Your task to perform on an android device: search for starred emails in the gmail app Image 0: 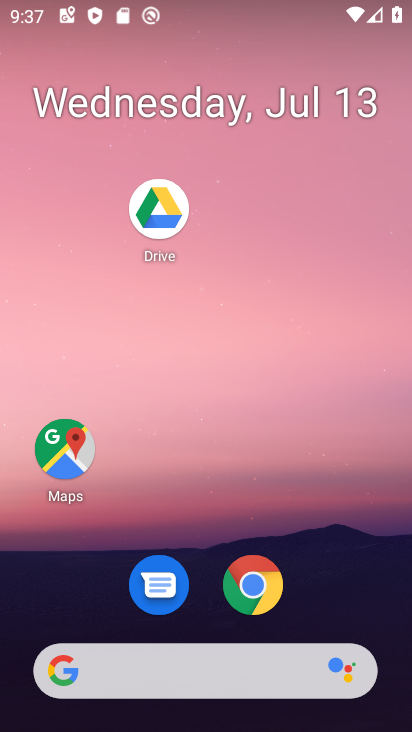
Step 0: press home button
Your task to perform on an android device: search for starred emails in the gmail app Image 1: 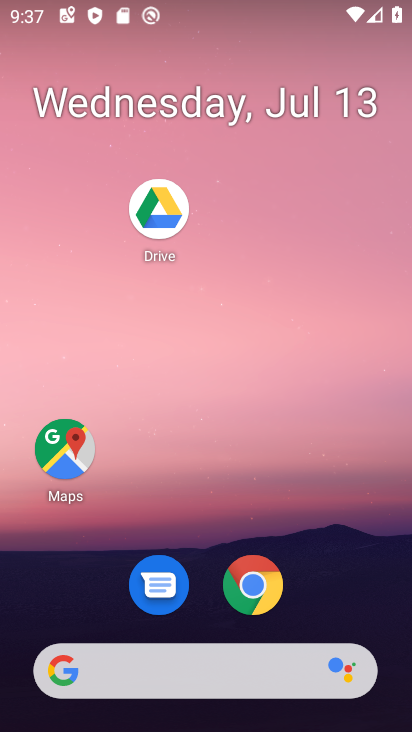
Step 1: drag from (208, 679) to (360, 66)
Your task to perform on an android device: search for starred emails in the gmail app Image 2: 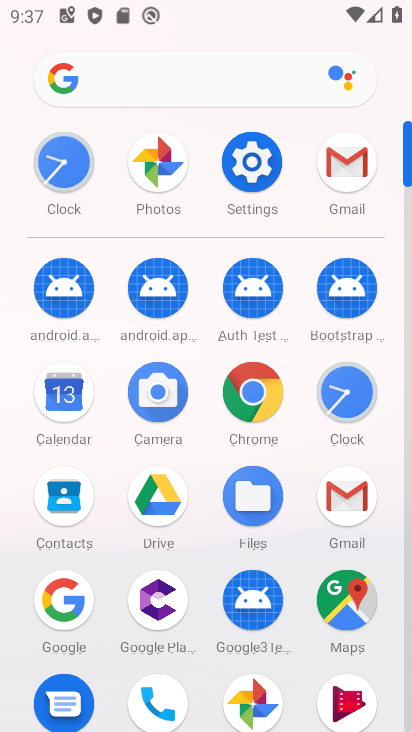
Step 2: click (340, 157)
Your task to perform on an android device: search for starred emails in the gmail app Image 3: 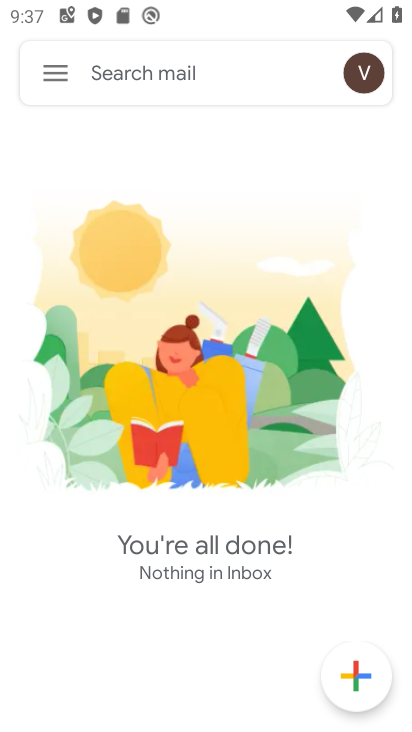
Step 3: click (47, 69)
Your task to perform on an android device: search for starred emails in the gmail app Image 4: 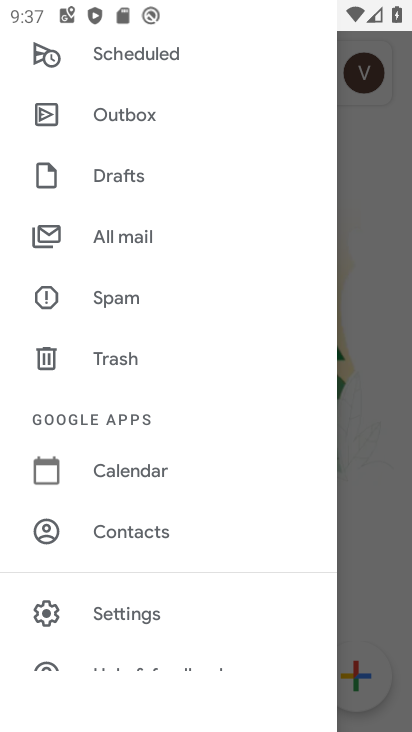
Step 4: drag from (255, 151) to (268, 541)
Your task to perform on an android device: search for starred emails in the gmail app Image 5: 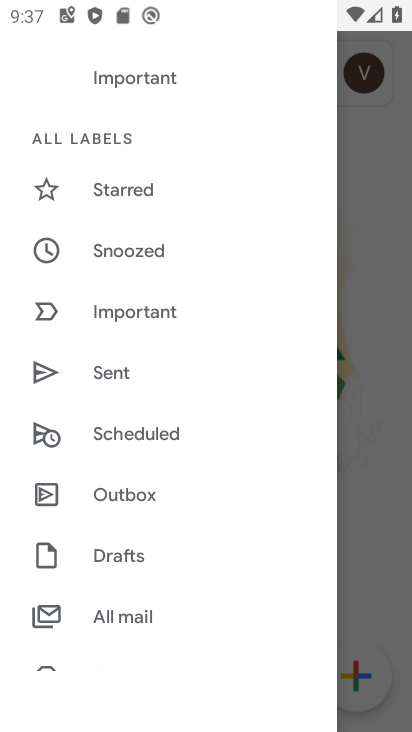
Step 5: click (142, 182)
Your task to perform on an android device: search for starred emails in the gmail app Image 6: 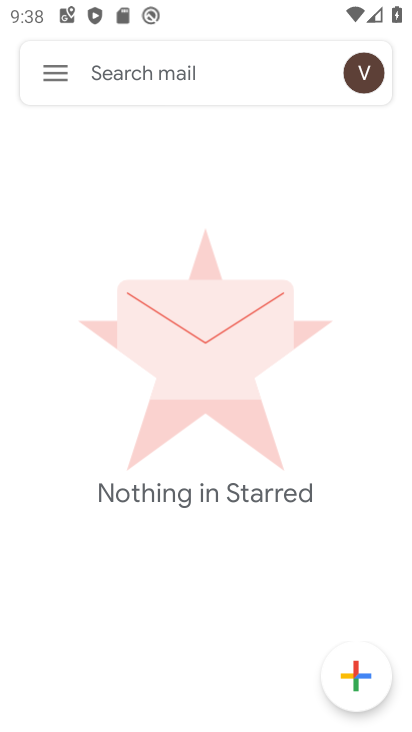
Step 6: task complete